Your task to perform on an android device: What's the weather? Image 0: 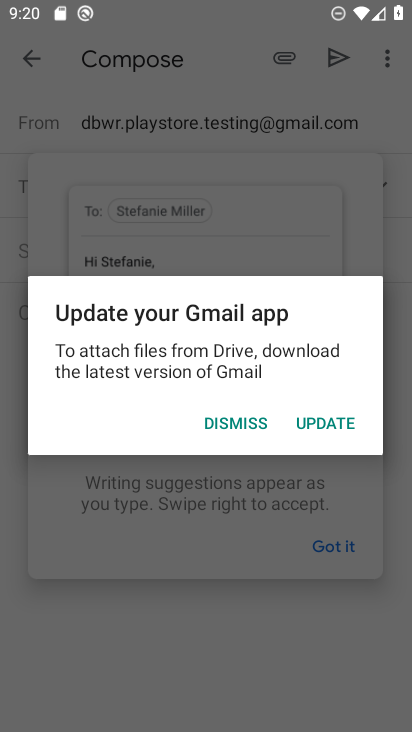
Step 0: press home button
Your task to perform on an android device: What's the weather? Image 1: 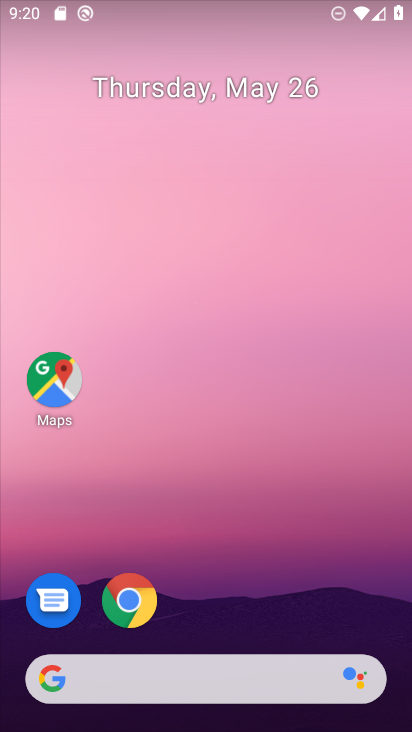
Step 1: drag from (152, 620) to (199, 241)
Your task to perform on an android device: What's the weather? Image 2: 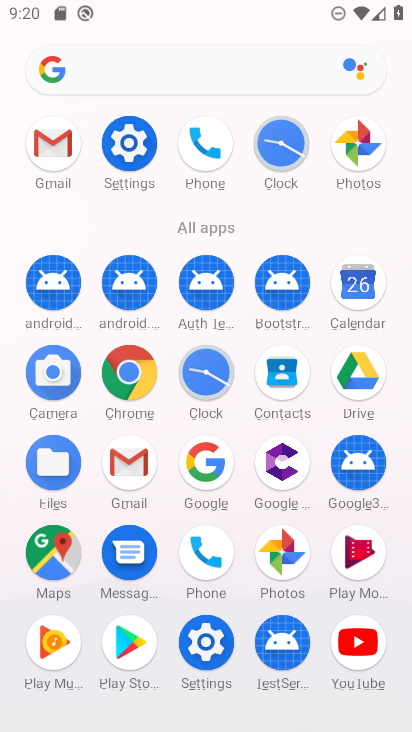
Step 2: click (215, 462)
Your task to perform on an android device: What's the weather? Image 3: 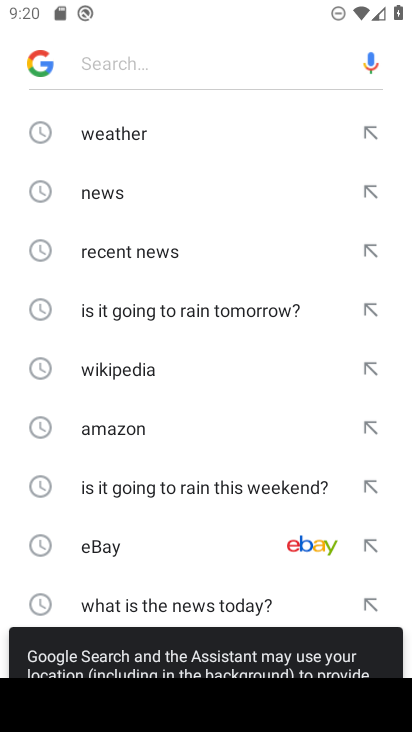
Step 3: click (99, 140)
Your task to perform on an android device: What's the weather? Image 4: 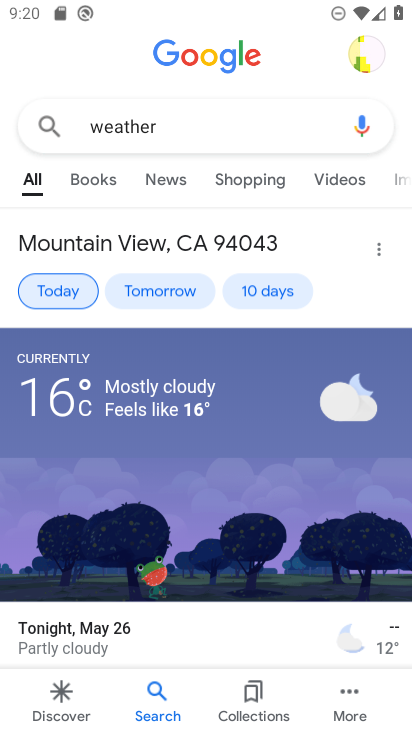
Step 4: task complete